Your task to perform on an android device: see tabs open on other devices in the chrome app Image 0: 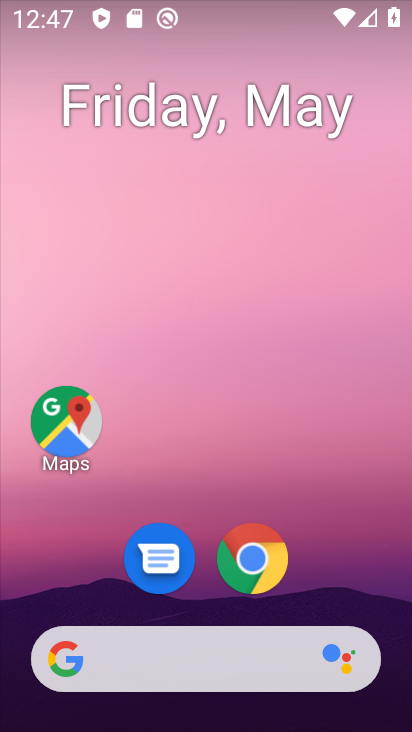
Step 0: drag from (371, 578) to (283, 146)
Your task to perform on an android device: see tabs open on other devices in the chrome app Image 1: 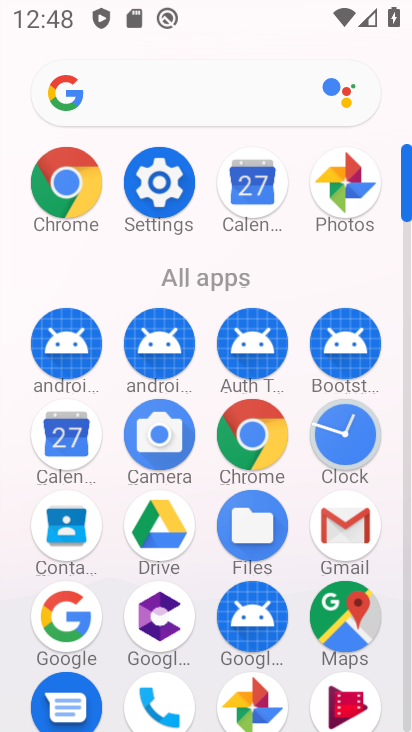
Step 1: click (406, 665)
Your task to perform on an android device: see tabs open on other devices in the chrome app Image 2: 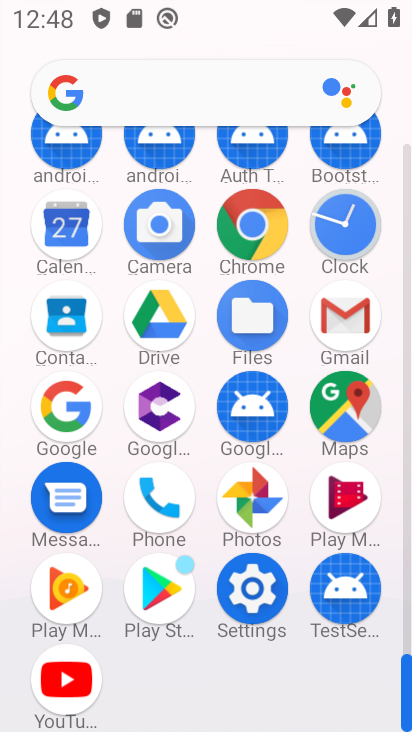
Step 2: click (247, 212)
Your task to perform on an android device: see tabs open on other devices in the chrome app Image 3: 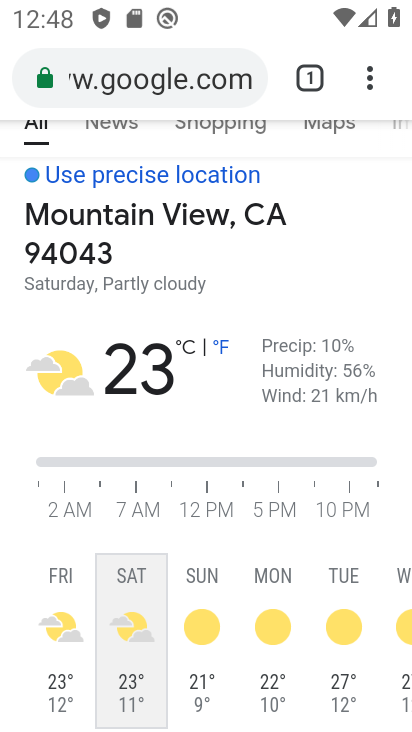
Step 3: click (377, 74)
Your task to perform on an android device: see tabs open on other devices in the chrome app Image 4: 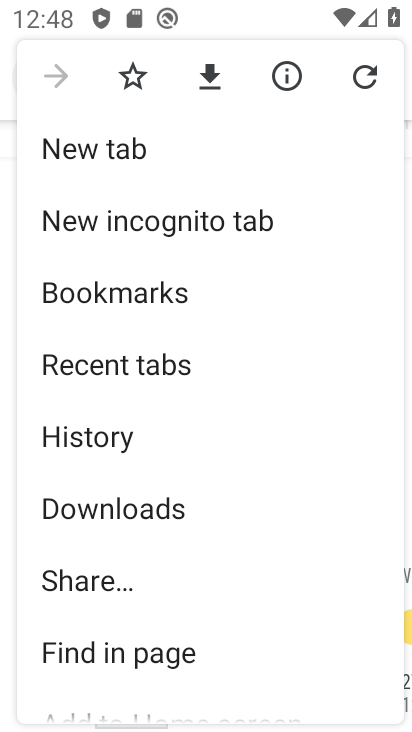
Step 4: click (120, 382)
Your task to perform on an android device: see tabs open on other devices in the chrome app Image 5: 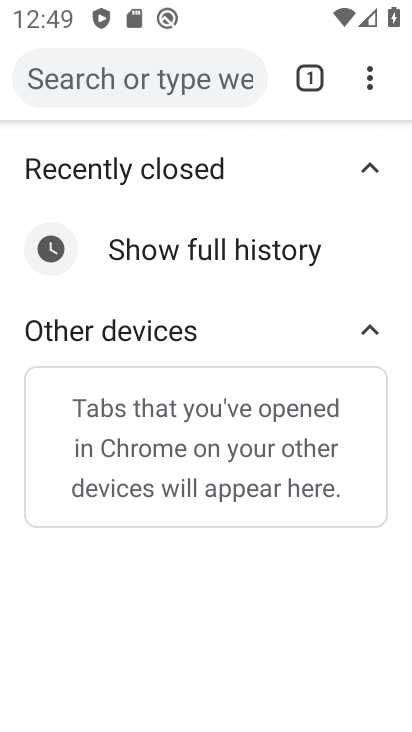
Step 5: task complete